Your task to perform on an android device: open app "PUBG MOBILE" (install if not already installed) and enter user name: "phenomenologically@gmail.com" and password: "artillery" Image 0: 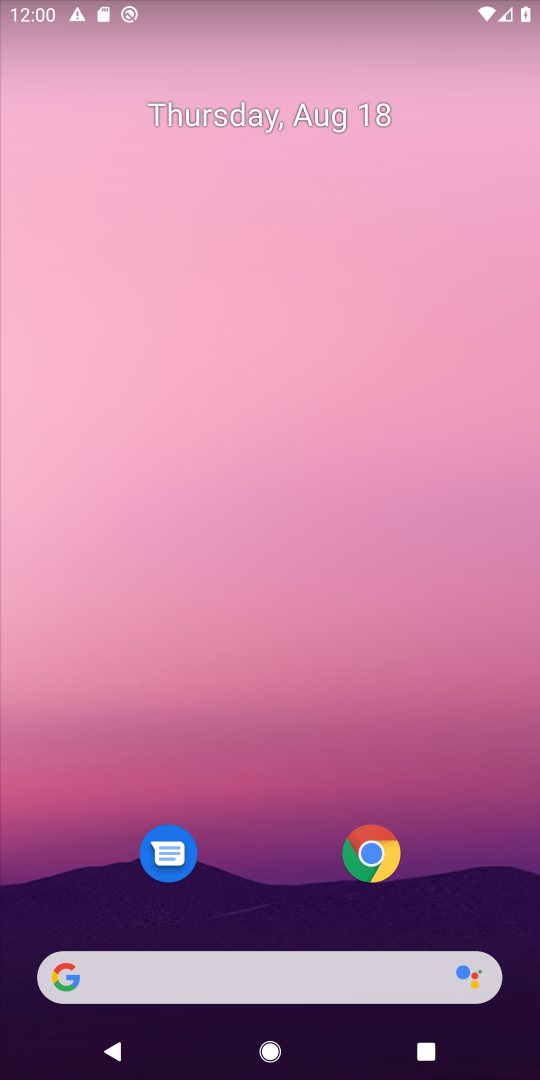
Step 0: drag from (223, 1047) to (498, 87)
Your task to perform on an android device: open app "PUBG MOBILE" (install if not already installed) and enter user name: "phenomenologically@gmail.com" and password: "artillery" Image 1: 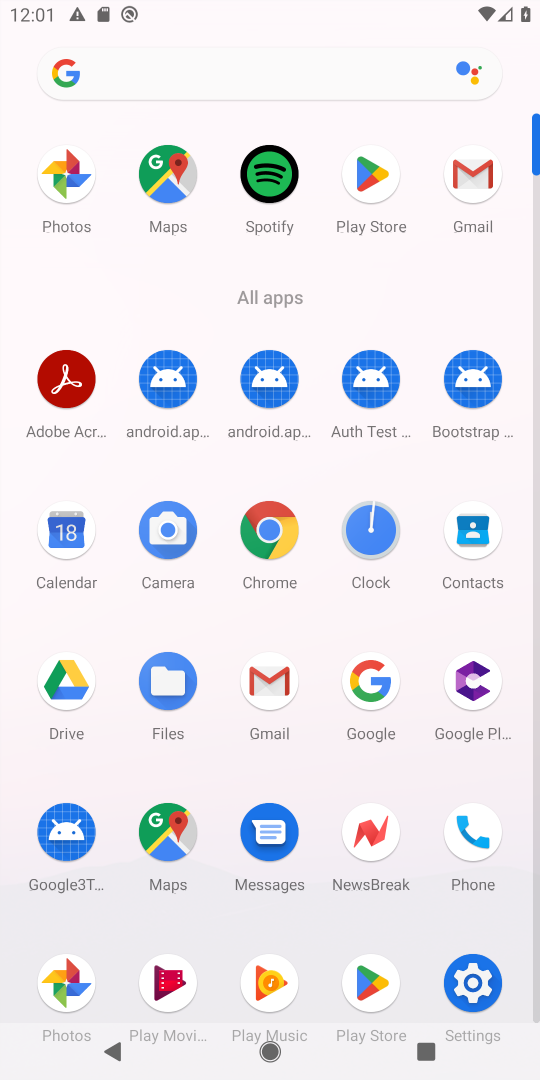
Step 1: click (375, 210)
Your task to perform on an android device: open app "PUBG MOBILE" (install if not already installed) and enter user name: "phenomenologically@gmail.com" and password: "artillery" Image 2: 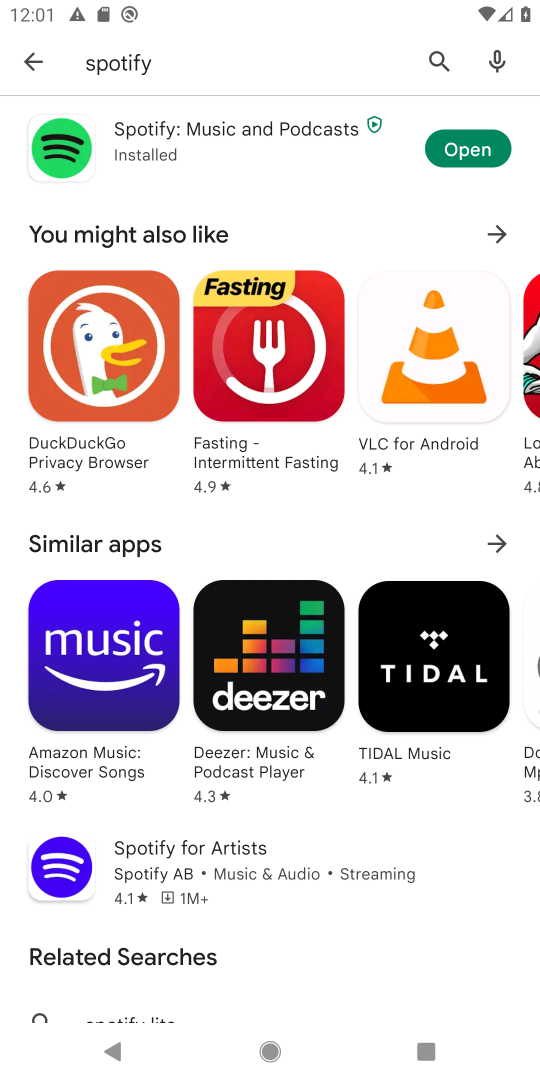
Step 2: click (44, 73)
Your task to perform on an android device: open app "PUBG MOBILE" (install if not already installed) and enter user name: "phenomenologically@gmail.com" and password: "artillery" Image 3: 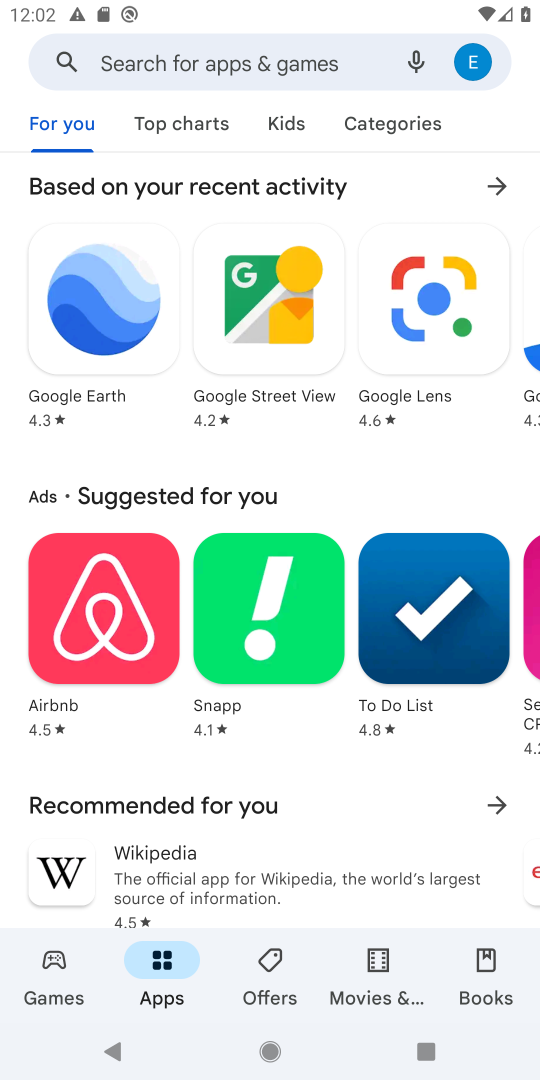
Step 3: click (250, 66)
Your task to perform on an android device: open app "PUBG MOBILE" (install if not already installed) and enter user name: "phenomenologically@gmail.com" and password: "artillery" Image 4: 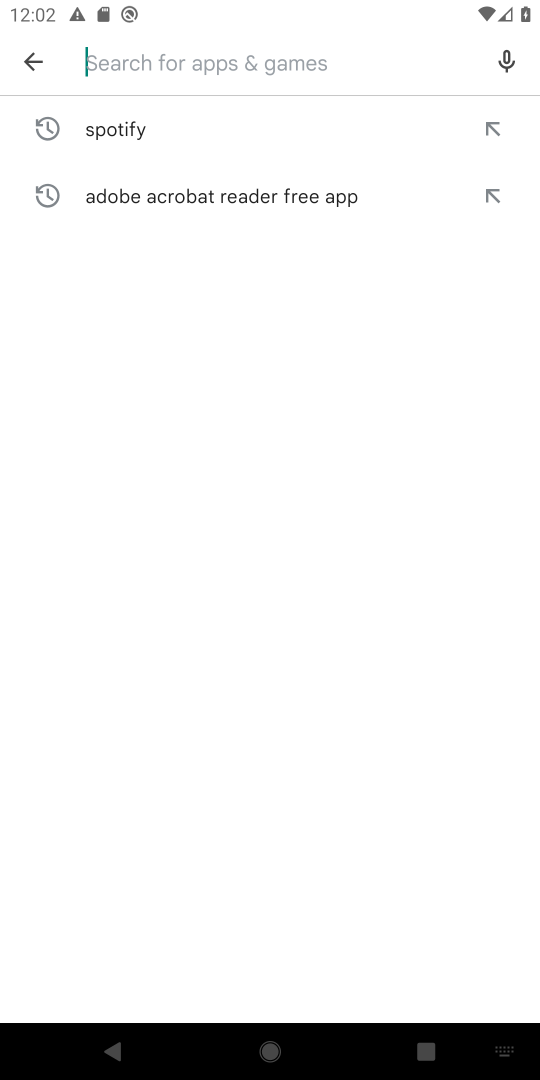
Step 4: type "PUBG MOBILE"
Your task to perform on an android device: open app "PUBG MOBILE" (install if not already installed) and enter user name: "phenomenologically@gmail.com" and password: "artillery" Image 5: 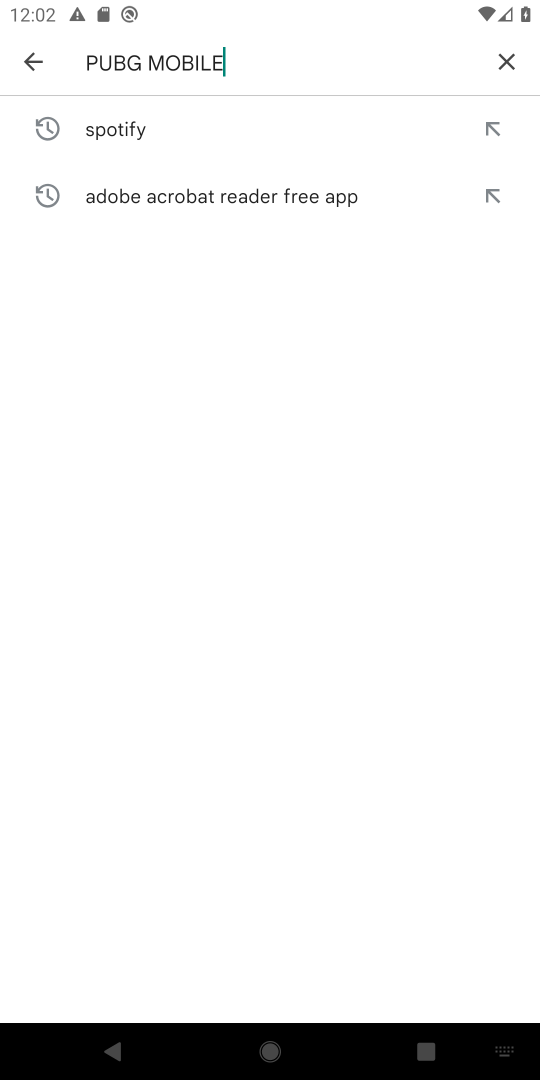
Step 5: type ""
Your task to perform on an android device: open app "PUBG MOBILE" (install if not already installed) and enter user name: "phenomenologically@gmail.com" and password: "artillery" Image 6: 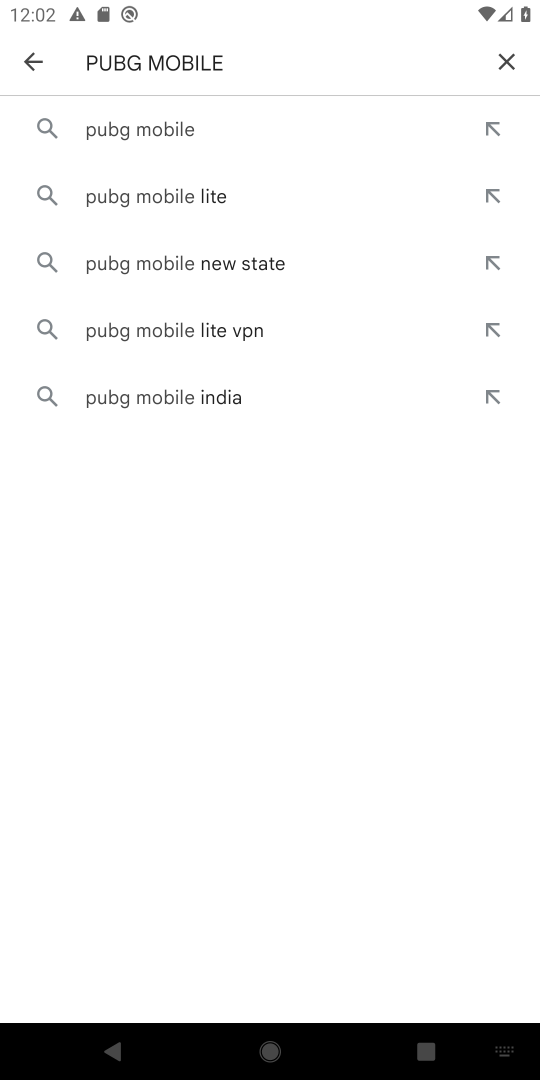
Step 6: click (287, 140)
Your task to perform on an android device: open app "PUBG MOBILE" (install if not already installed) and enter user name: "phenomenologically@gmail.com" and password: "artillery" Image 7: 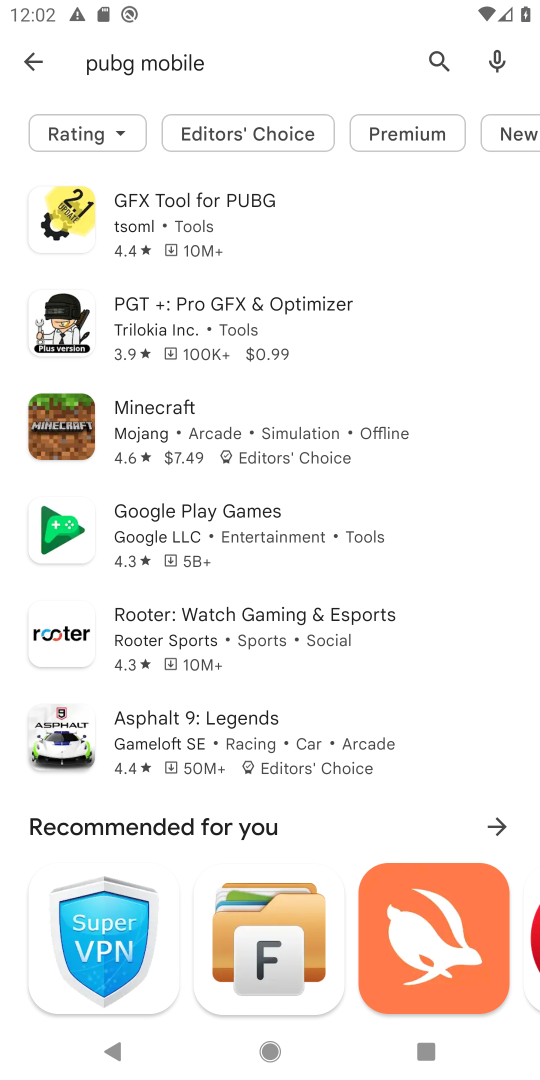
Step 7: task complete